Your task to perform on an android device: star an email in the gmail app Image 0: 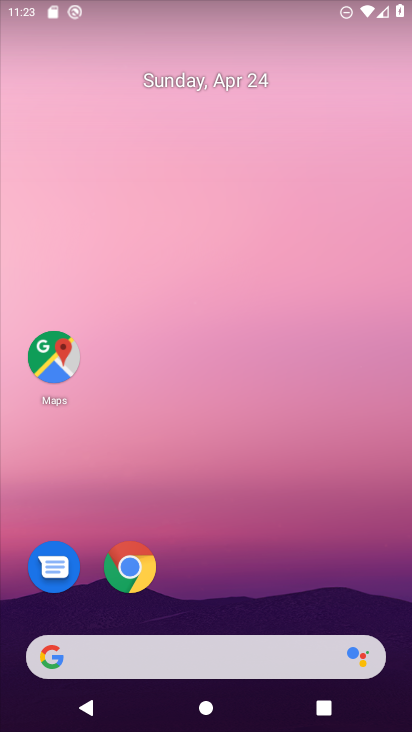
Step 0: drag from (270, 575) to (329, 60)
Your task to perform on an android device: star an email in the gmail app Image 1: 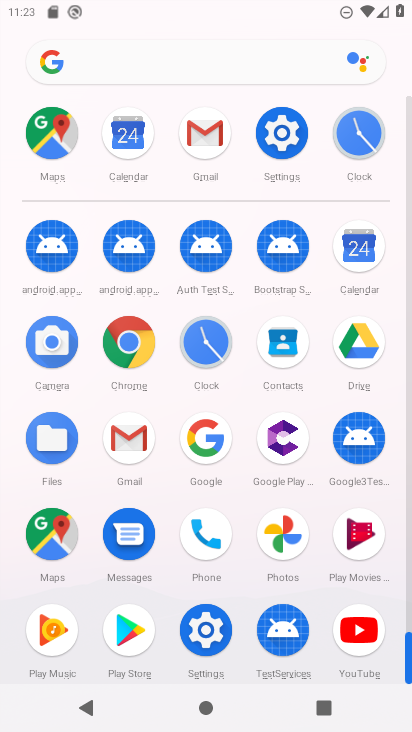
Step 1: click (133, 435)
Your task to perform on an android device: star an email in the gmail app Image 2: 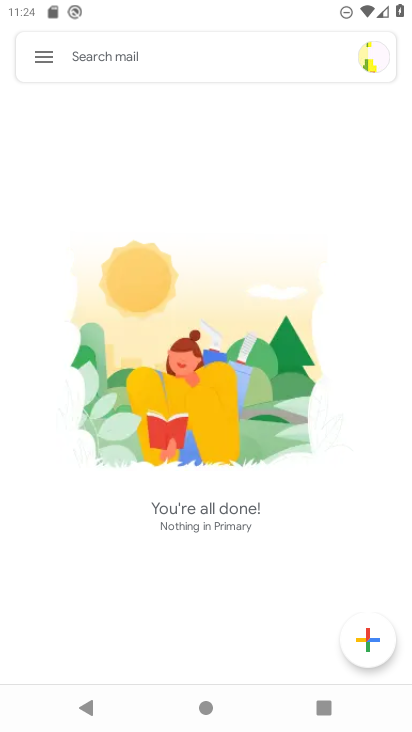
Step 2: click (47, 58)
Your task to perform on an android device: star an email in the gmail app Image 3: 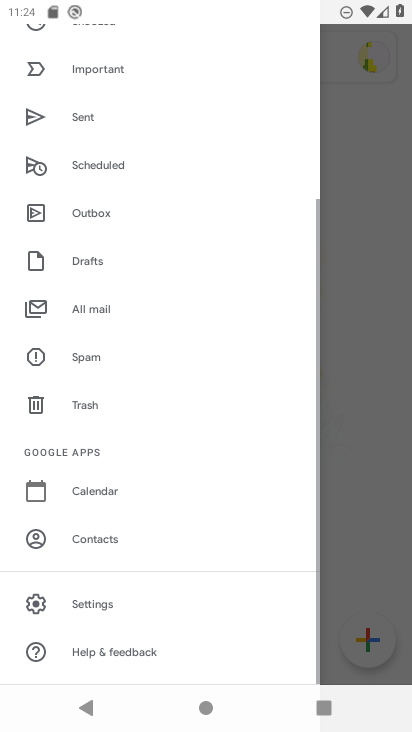
Step 3: drag from (116, 160) to (139, 578)
Your task to perform on an android device: star an email in the gmail app Image 4: 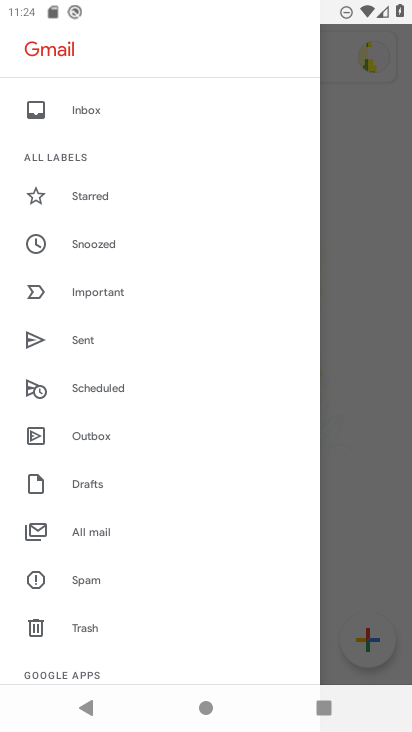
Step 4: click (96, 98)
Your task to perform on an android device: star an email in the gmail app Image 5: 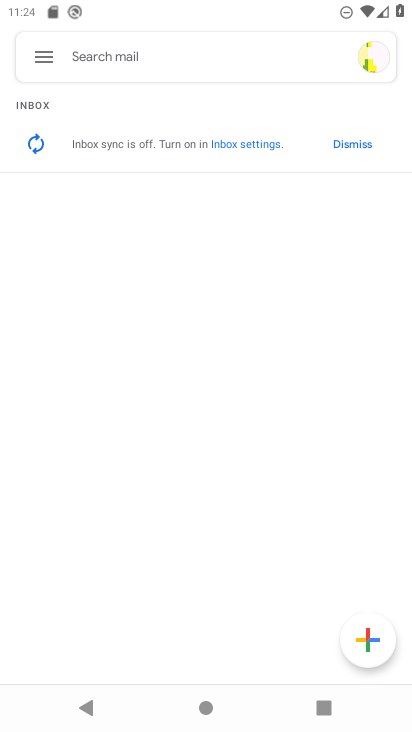
Step 5: click (35, 75)
Your task to perform on an android device: star an email in the gmail app Image 6: 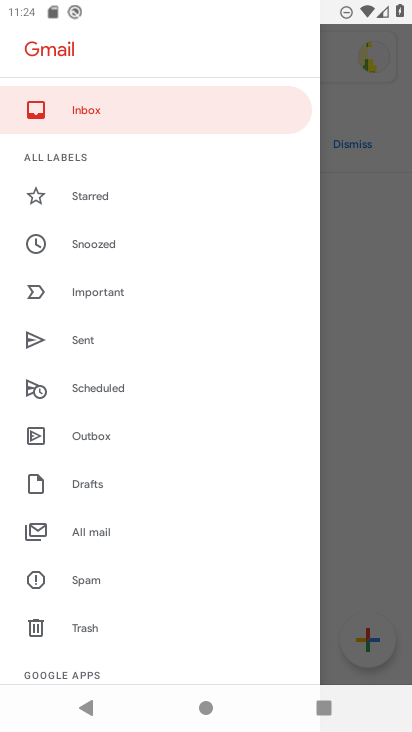
Step 6: click (127, 201)
Your task to perform on an android device: star an email in the gmail app Image 7: 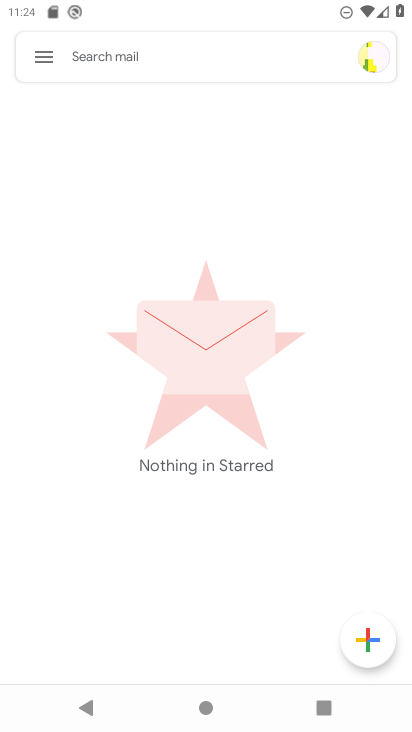
Step 7: task complete